Your task to perform on an android device: Open the stopwatch Image 0: 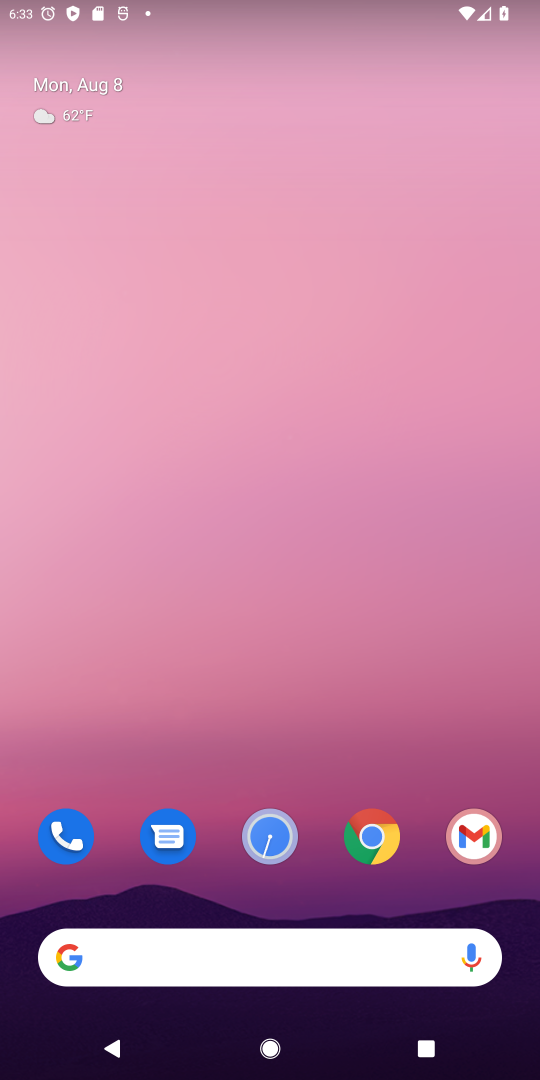
Step 0: drag from (249, 745) to (366, 2)
Your task to perform on an android device: Open the stopwatch Image 1: 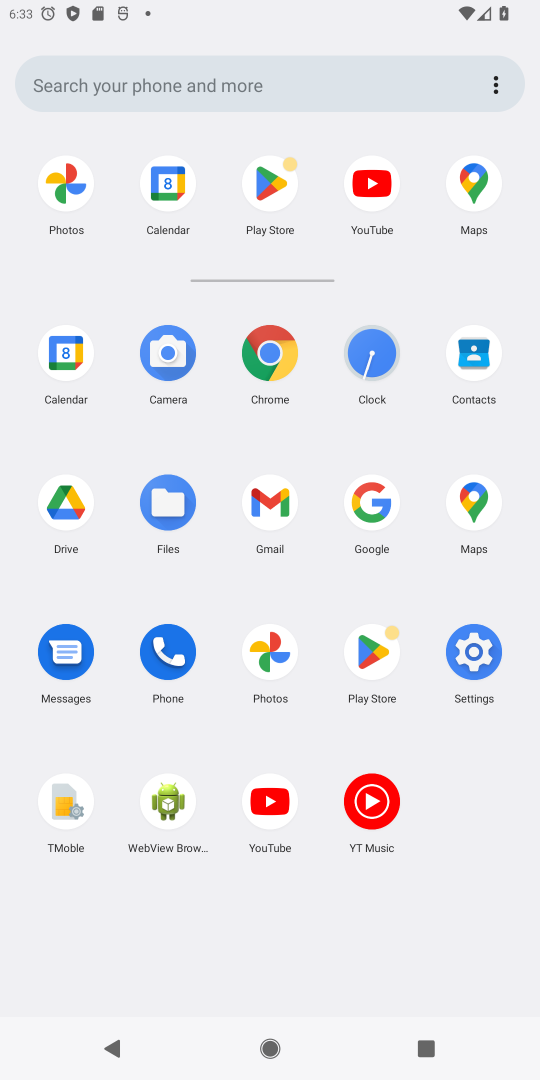
Step 1: click (366, 378)
Your task to perform on an android device: Open the stopwatch Image 2: 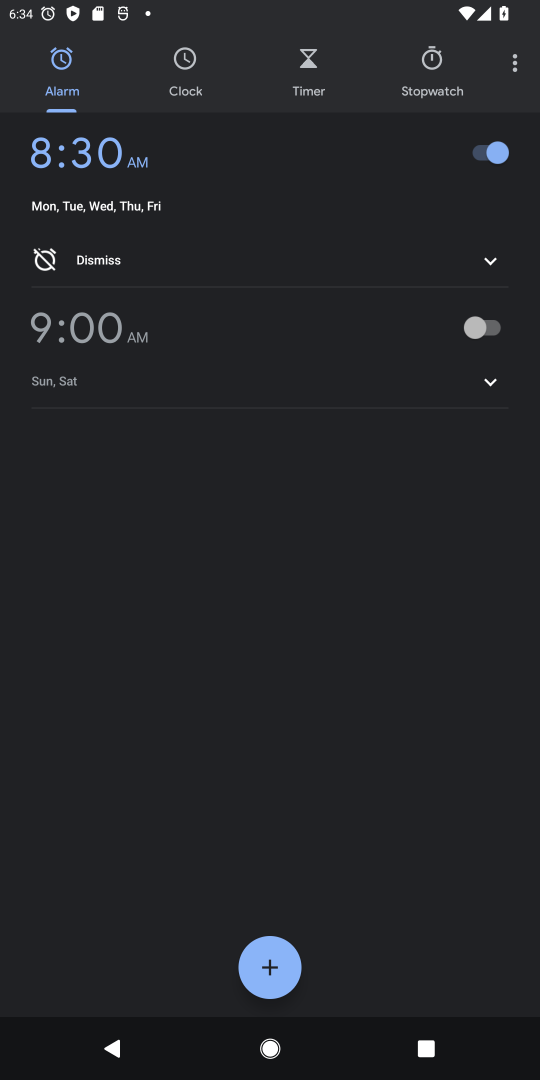
Step 2: click (445, 76)
Your task to perform on an android device: Open the stopwatch Image 3: 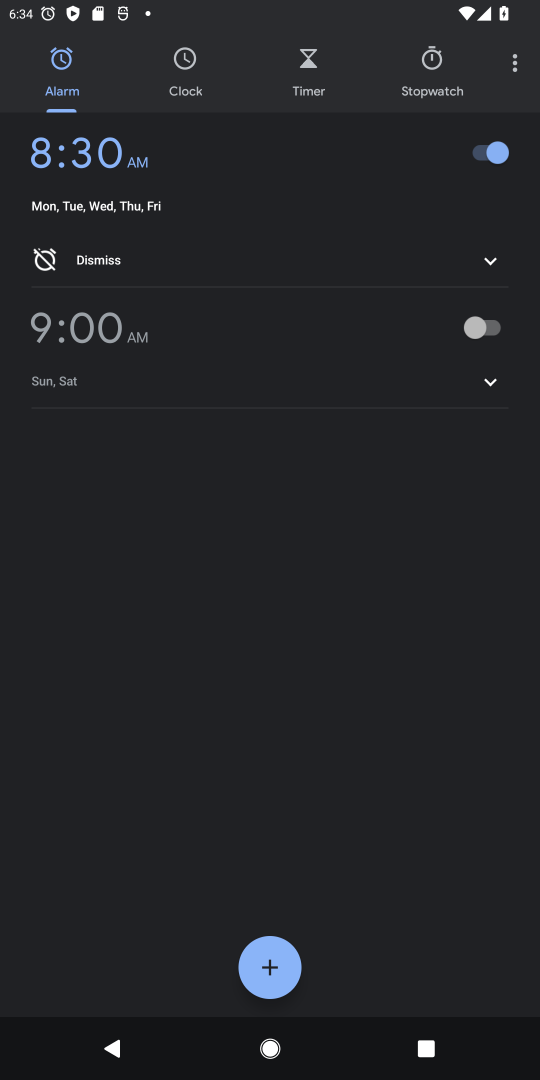
Step 3: click (430, 80)
Your task to perform on an android device: Open the stopwatch Image 4: 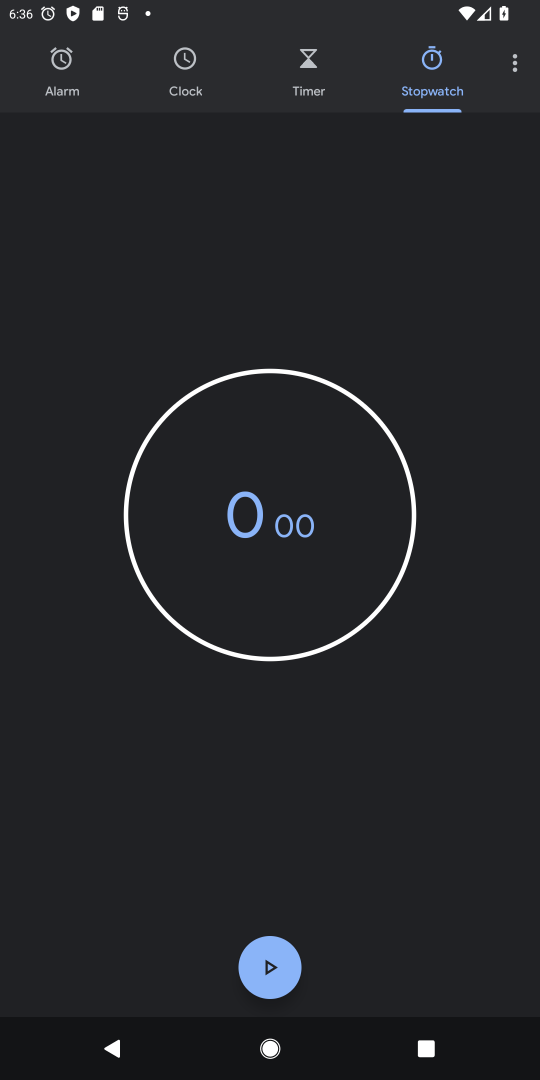
Step 4: click (272, 966)
Your task to perform on an android device: Open the stopwatch Image 5: 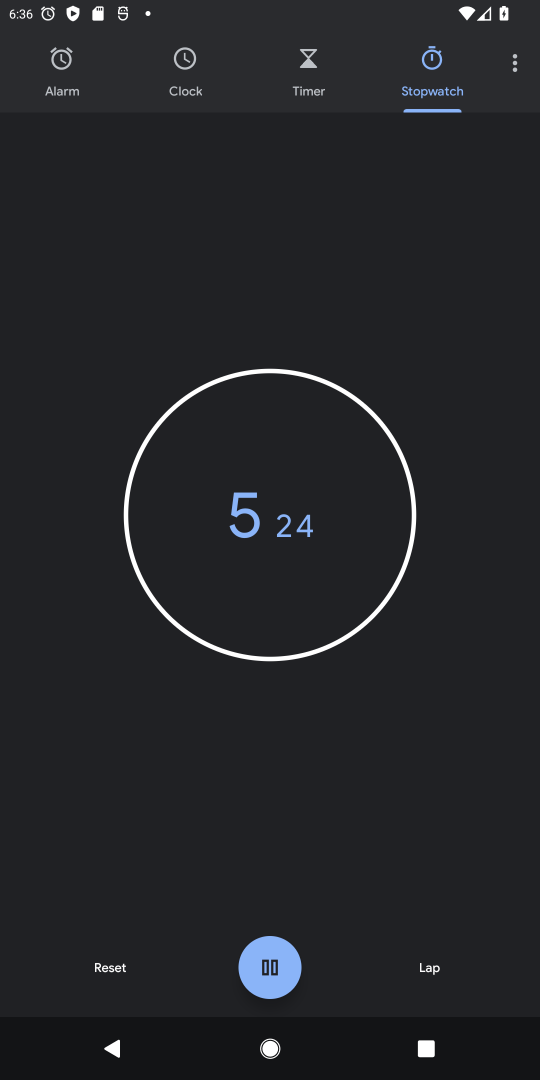
Step 5: task complete